Your task to perform on an android device: turn off smart reply in the gmail app Image 0: 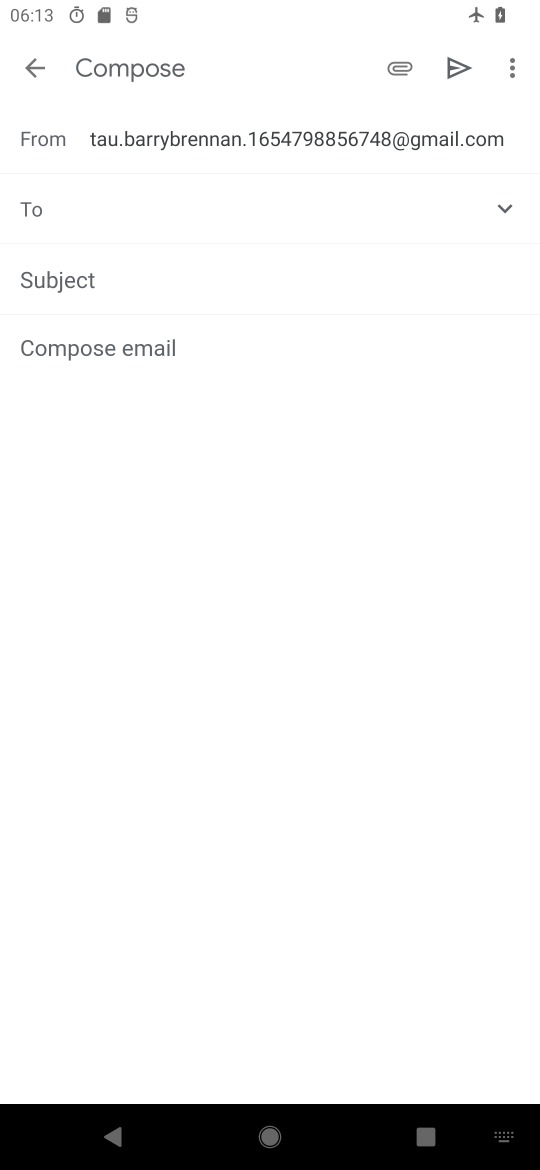
Step 0: press home button
Your task to perform on an android device: turn off smart reply in the gmail app Image 1: 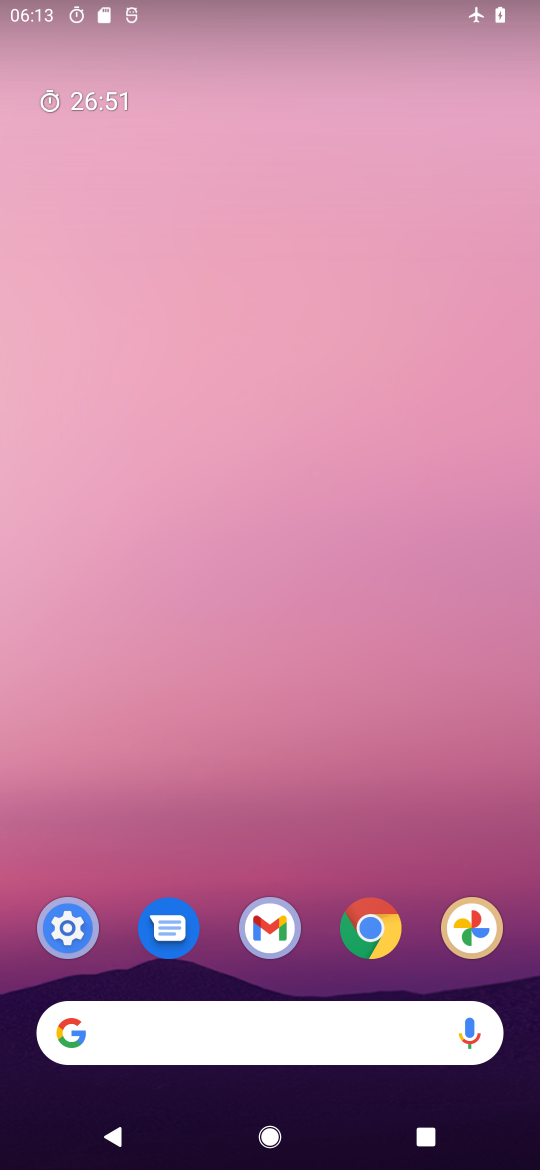
Step 1: click (269, 936)
Your task to perform on an android device: turn off smart reply in the gmail app Image 2: 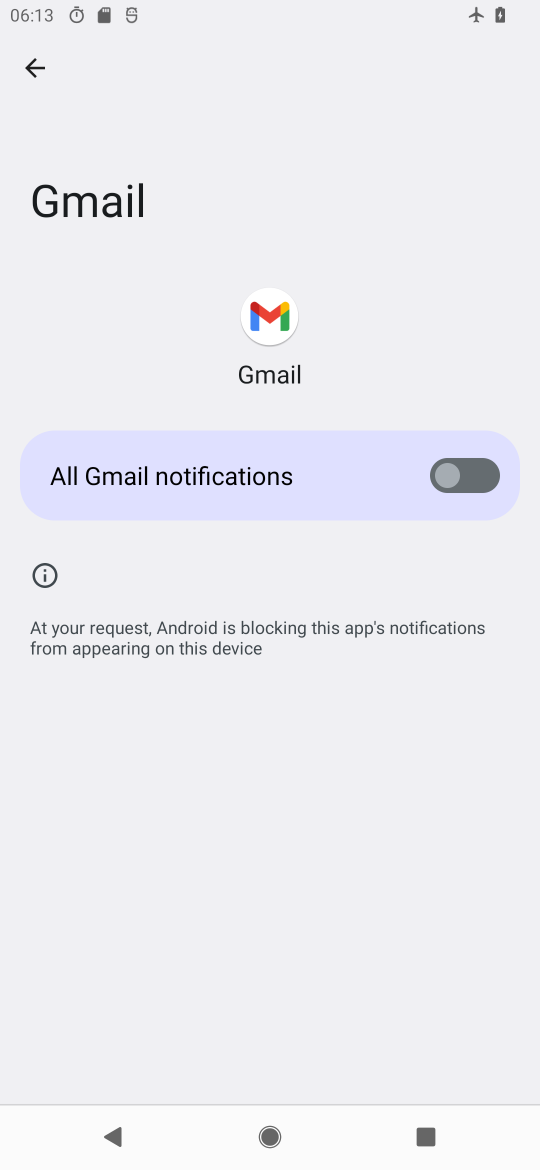
Step 2: click (31, 42)
Your task to perform on an android device: turn off smart reply in the gmail app Image 3: 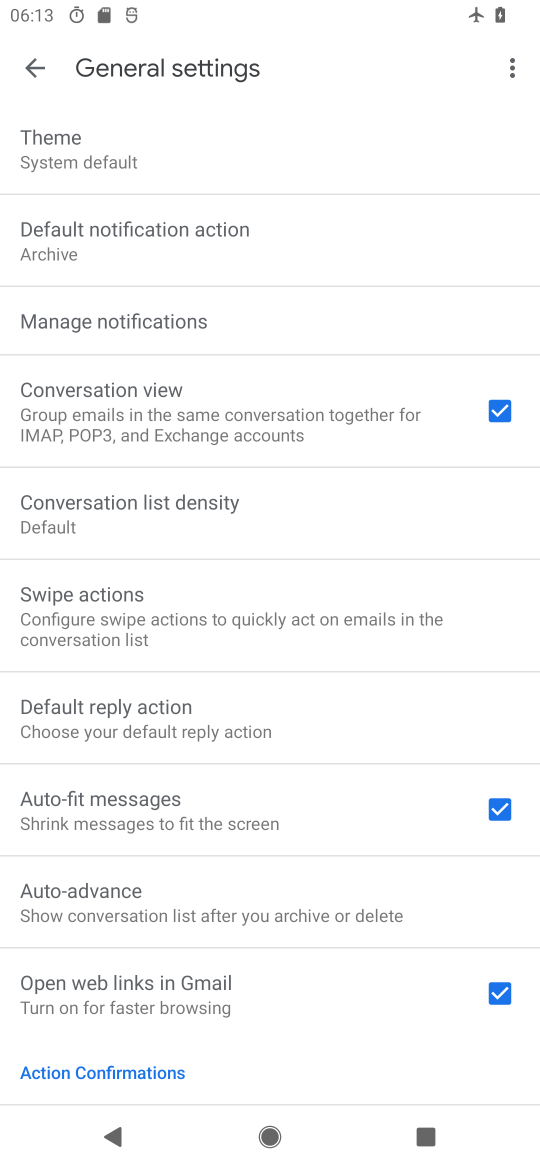
Step 3: click (37, 63)
Your task to perform on an android device: turn off smart reply in the gmail app Image 4: 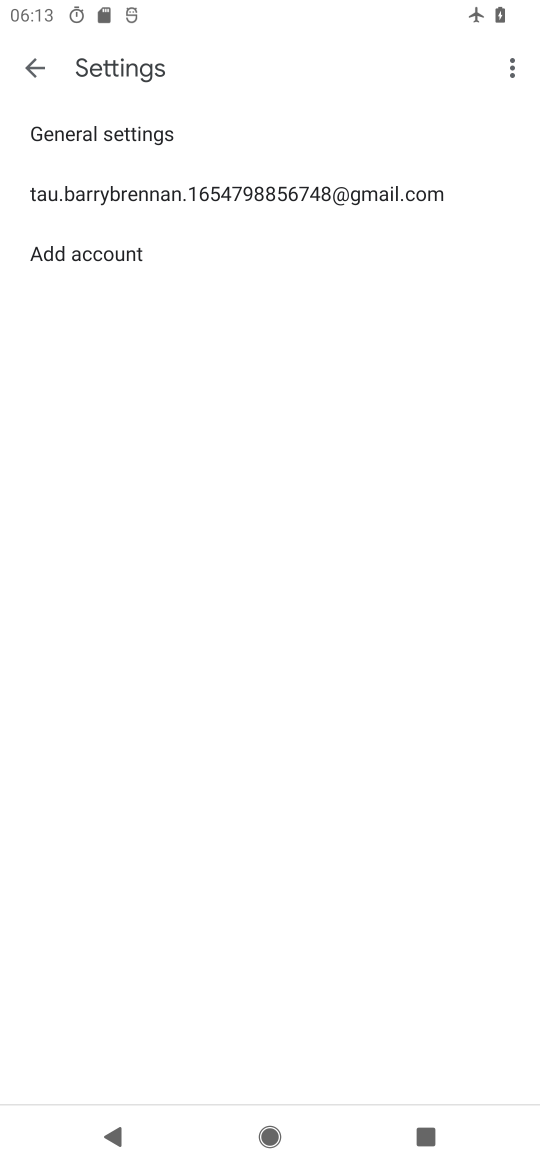
Step 4: click (37, 66)
Your task to perform on an android device: turn off smart reply in the gmail app Image 5: 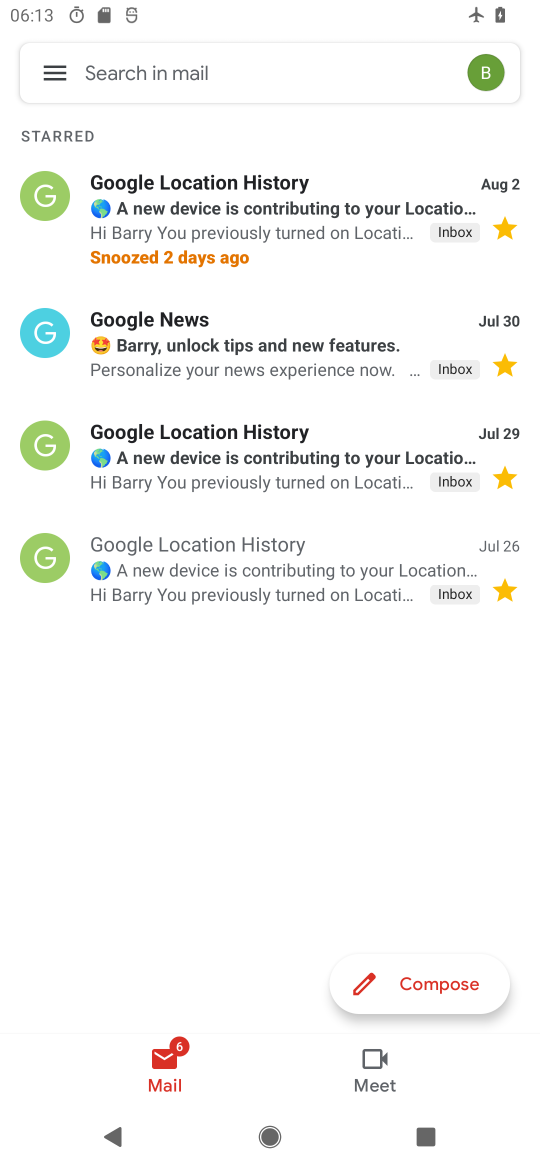
Step 5: click (54, 67)
Your task to perform on an android device: turn off smart reply in the gmail app Image 6: 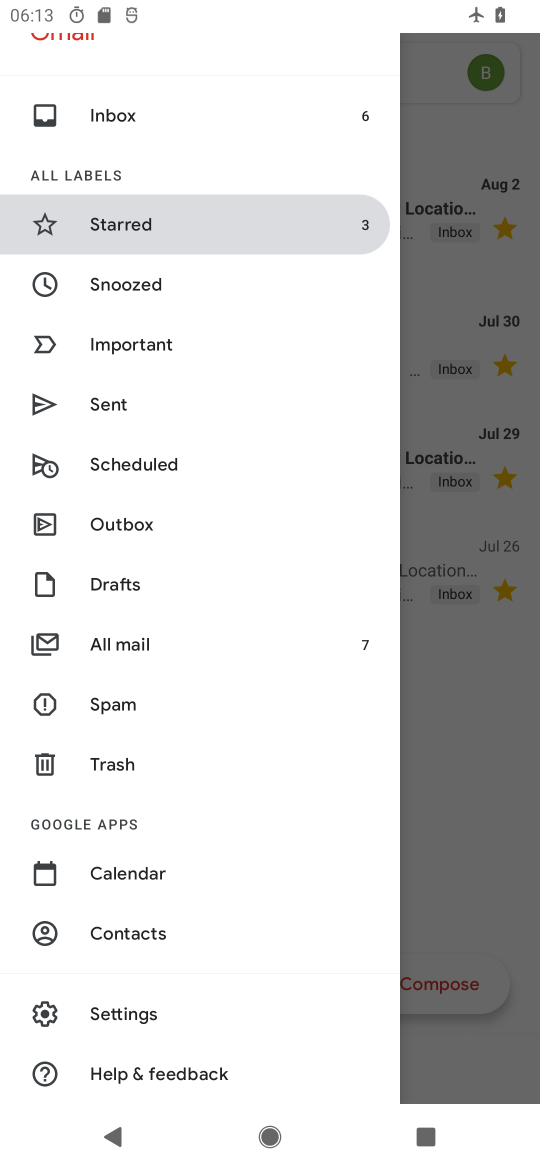
Step 6: click (132, 1011)
Your task to perform on an android device: turn off smart reply in the gmail app Image 7: 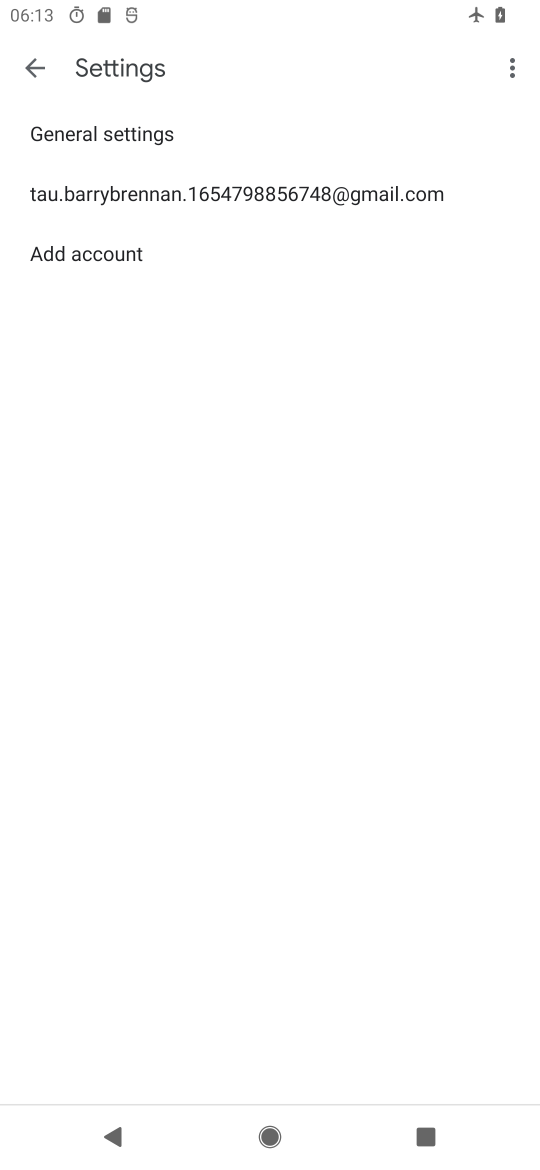
Step 7: click (175, 186)
Your task to perform on an android device: turn off smart reply in the gmail app Image 8: 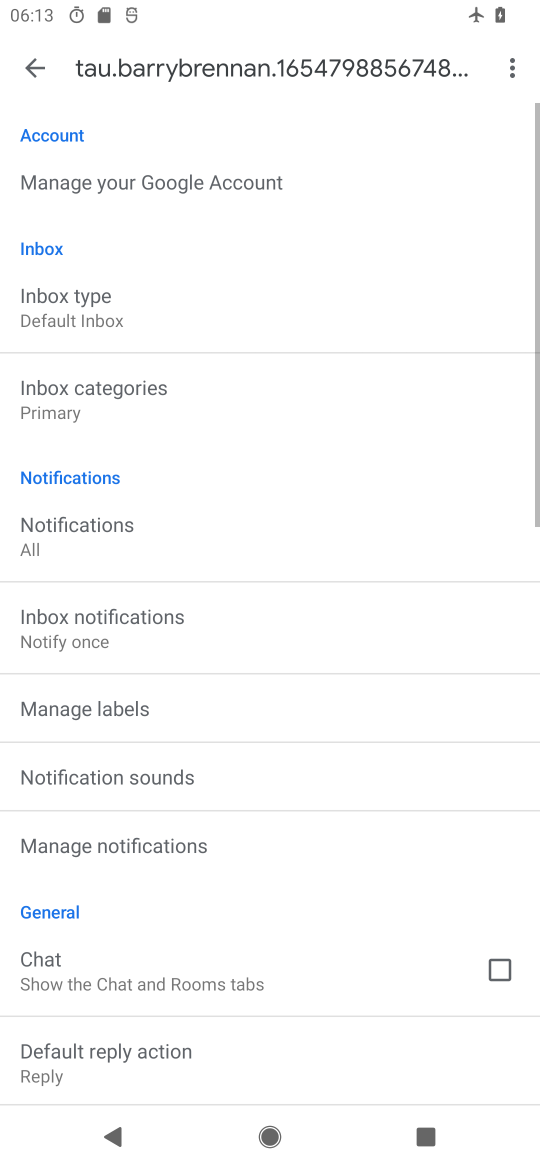
Step 8: drag from (358, 898) to (428, 290)
Your task to perform on an android device: turn off smart reply in the gmail app Image 9: 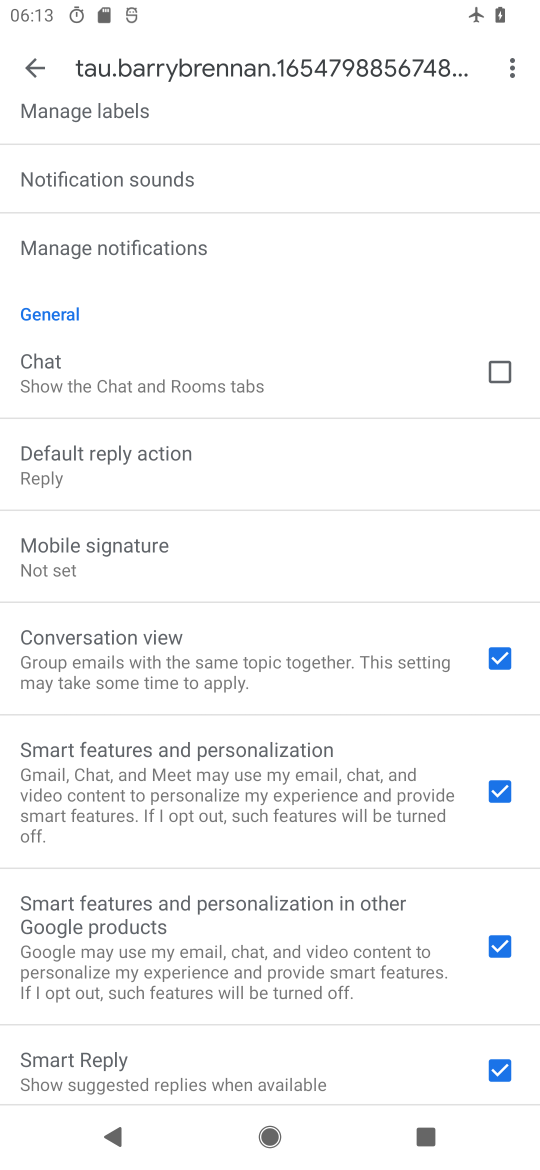
Step 9: drag from (423, 813) to (455, 243)
Your task to perform on an android device: turn off smart reply in the gmail app Image 10: 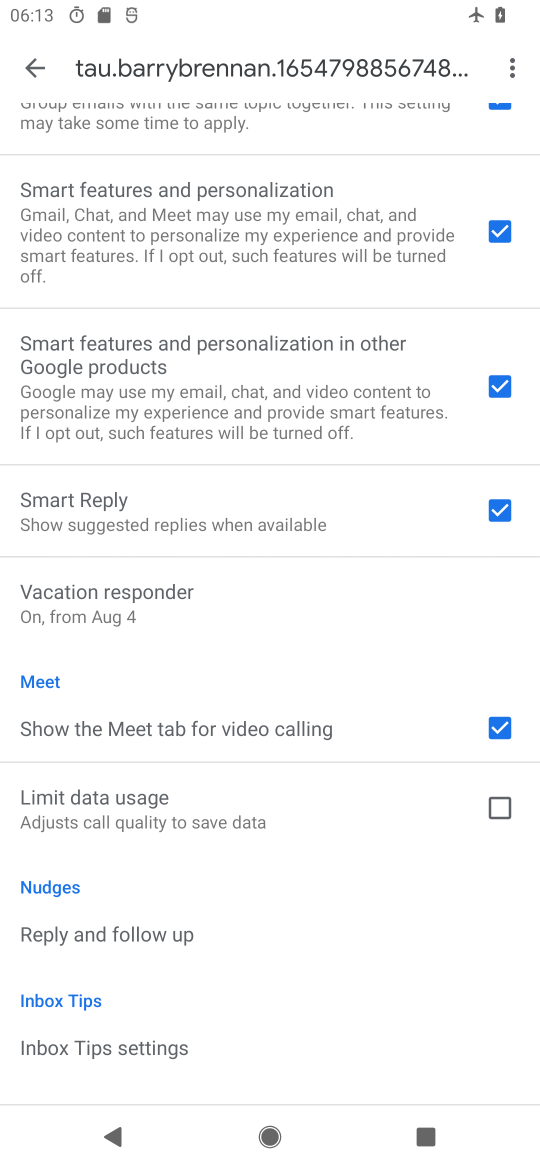
Step 10: click (477, 485)
Your task to perform on an android device: turn off smart reply in the gmail app Image 11: 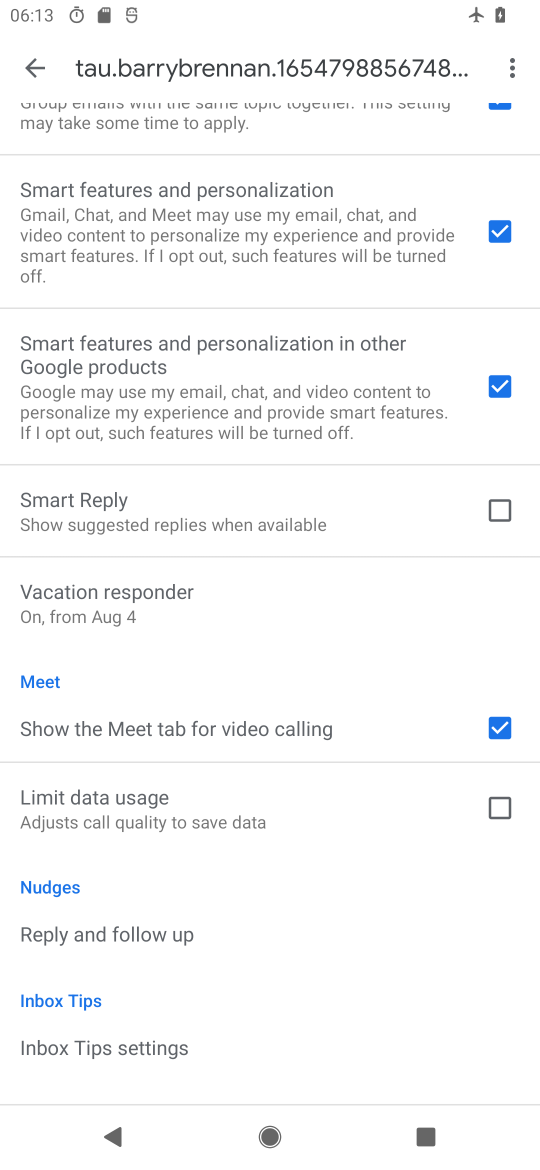
Step 11: task complete